Your task to perform on an android device: turn on location history Image 0: 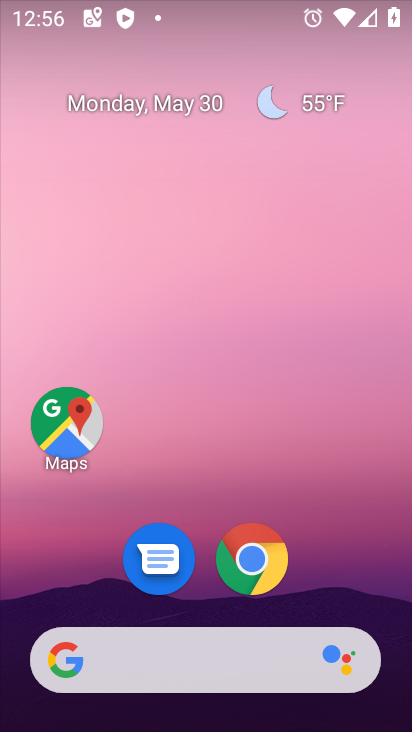
Step 0: drag from (196, 587) to (223, 101)
Your task to perform on an android device: turn on location history Image 1: 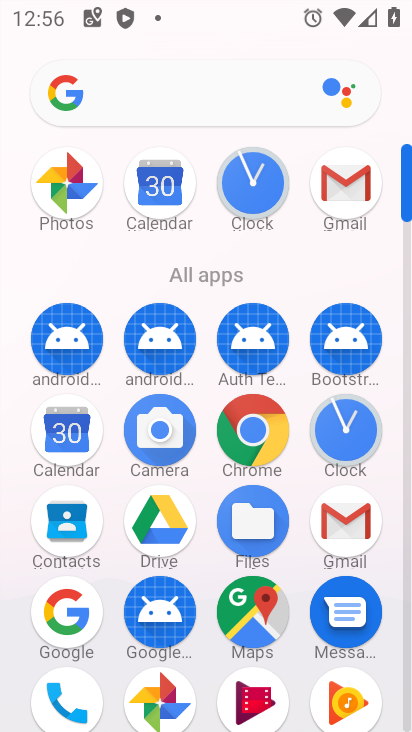
Step 1: drag from (190, 604) to (273, 135)
Your task to perform on an android device: turn on location history Image 2: 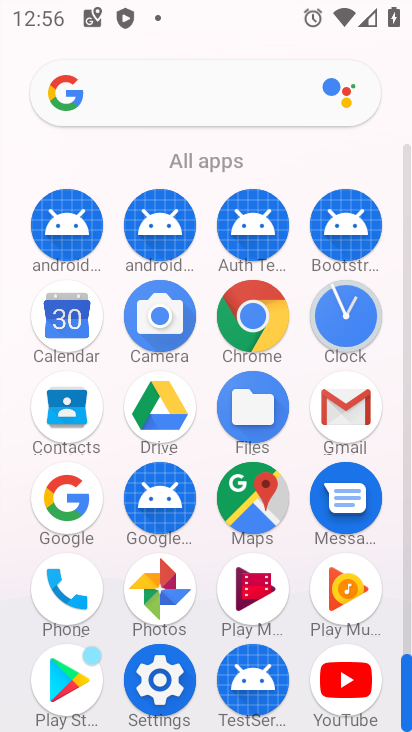
Step 2: click (155, 702)
Your task to perform on an android device: turn on location history Image 3: 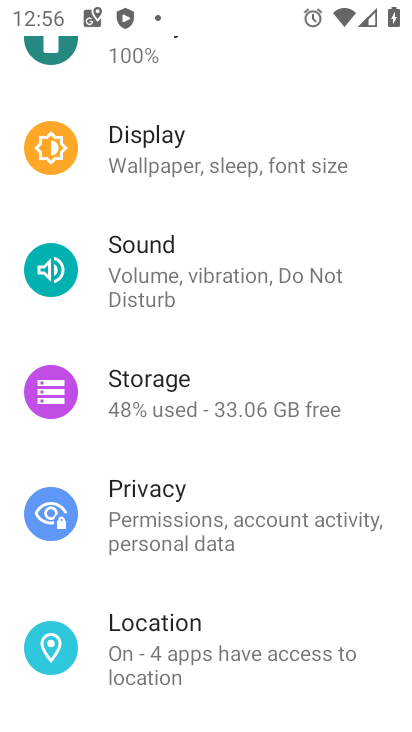
Step 3: drag from (203, 569) to (289, 104)
Your task to perform on an android device: turn on location history Image 4: 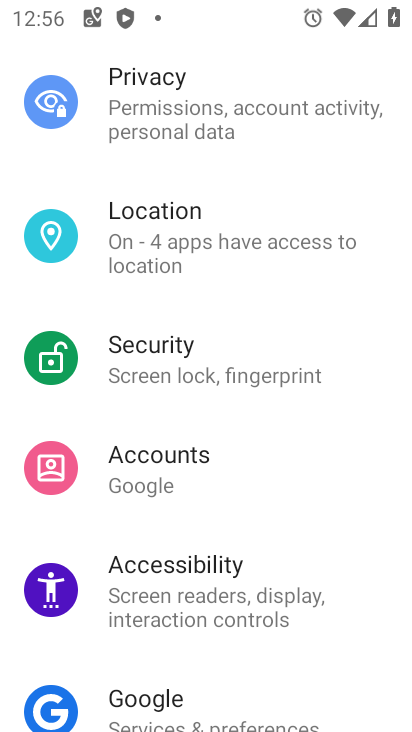
Step 4: click (152, 228)
Your task to perform on an android device: turn on location history Image 5: 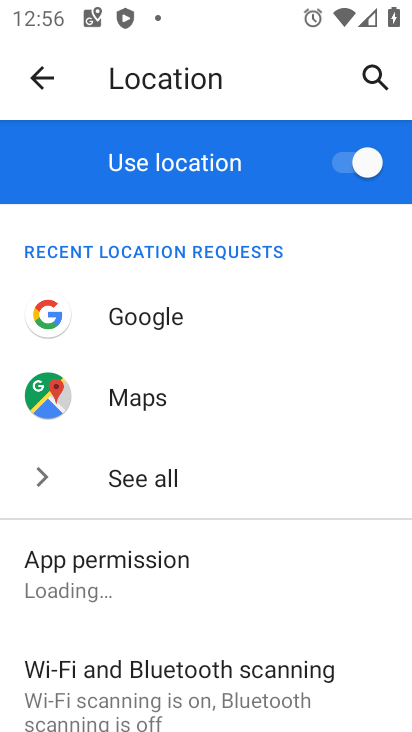
Step 5: drag from (128, 673) to (273, 148)
Your task to perform on an android device: turn on location history Image 6: 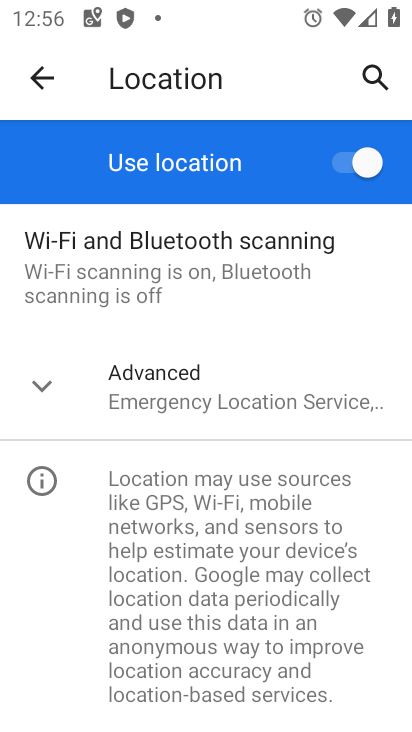
Step 6: click (144, 392)
Your task to perform on an android device: turn on location history Image 7: 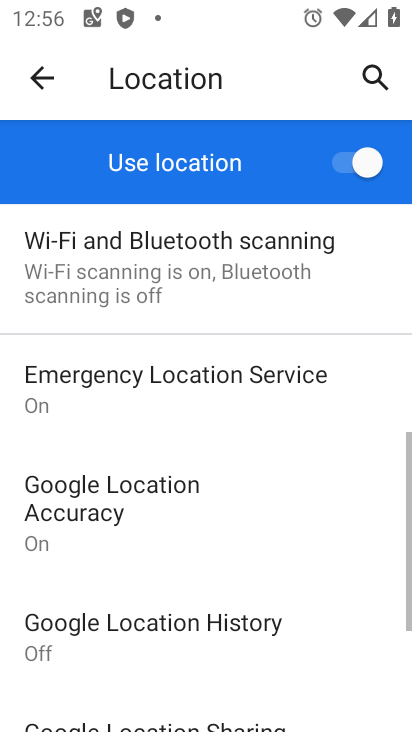
Step 7: click (149, 631)
Your task to perform on an android device: turn on location history Image 8: 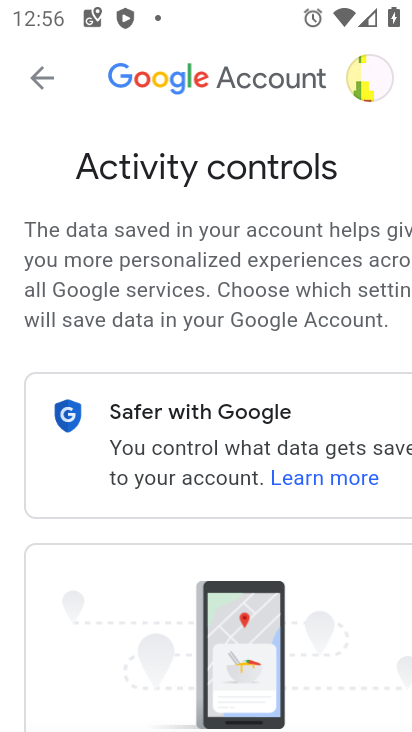
Step 8: task complete